Your task to perform on an android device: delete a single message in the gmail app Image 0: 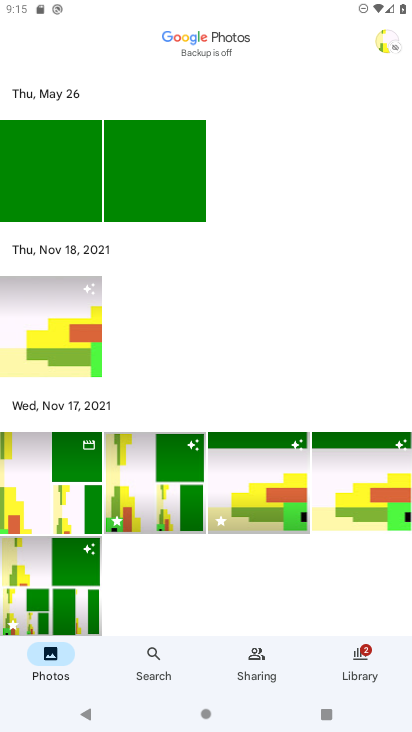
Step 0: press home button
Your task to perform on an android device: delete a single message in the gmail app Image 1: 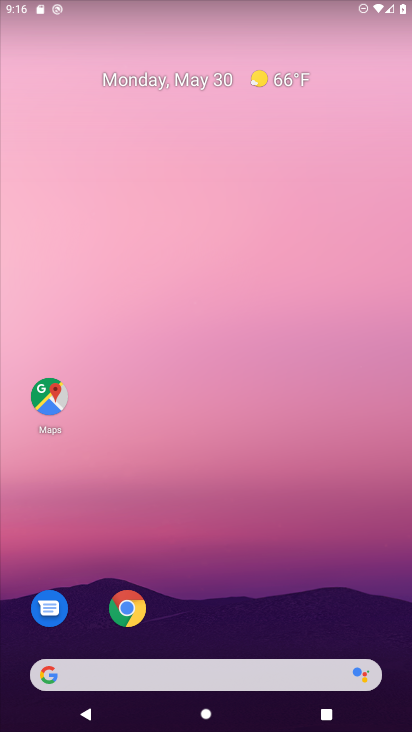
Step 1: drag from (242, 726) to (243, 128)
Your task to perform on an android device: delete a single message in the gmail app Image 2: 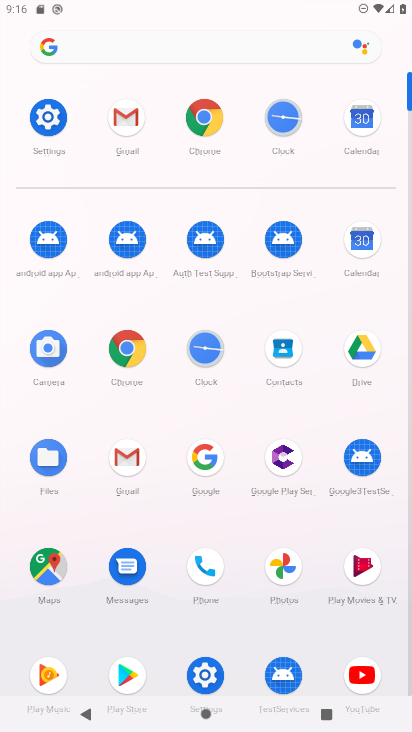
Step 2: click (127, 454)
Your task to perform on an android device: delete a single message in the gmail app Image 3: 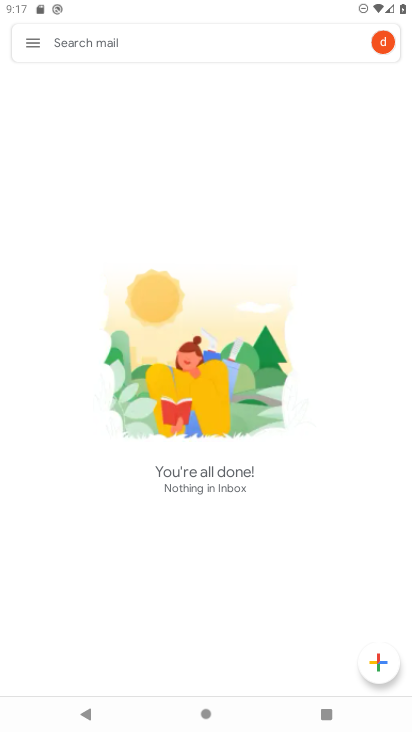
Step 3: task complete